Your task to perform on an android device: toggle show notifications on the lock screen Image 0: 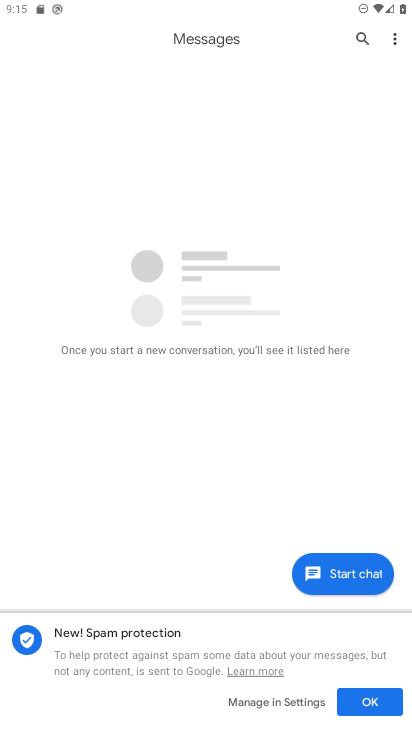
Step 0: press home button
Your task to perform on an android device: toggle show notifications on the lock screen Image 1: 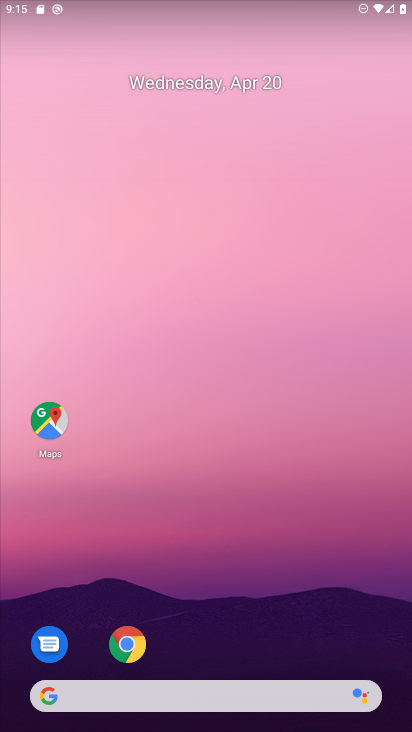
Step 1: drag from (305, 618) to (211, 84)
Your task to perform on an android device: toggle show notifications on the lock screen Image 2: 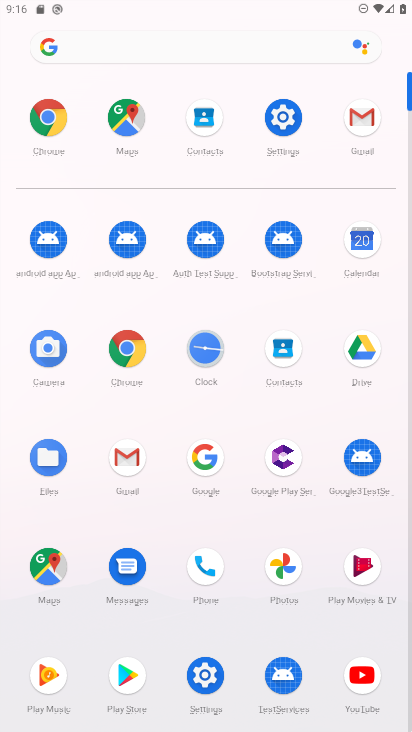
Step 2: click (192, 674)
Your task to perform on an android device: toggle show notifications on the lock screen Image 3: 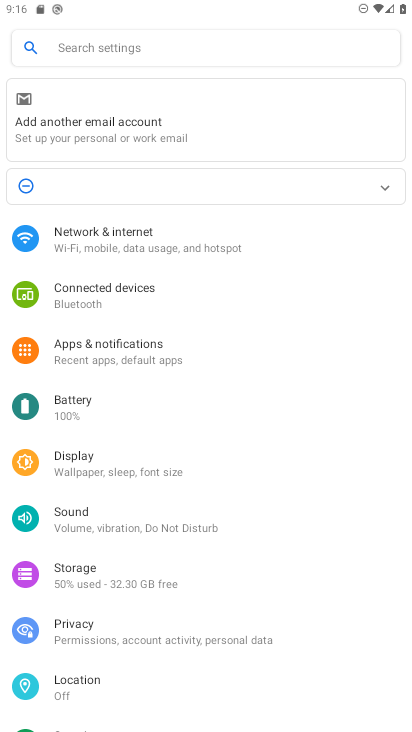
Step 3: click (150, 355)
Your task to perform on an android device: toggle show notifications on the lock screen Image 4: 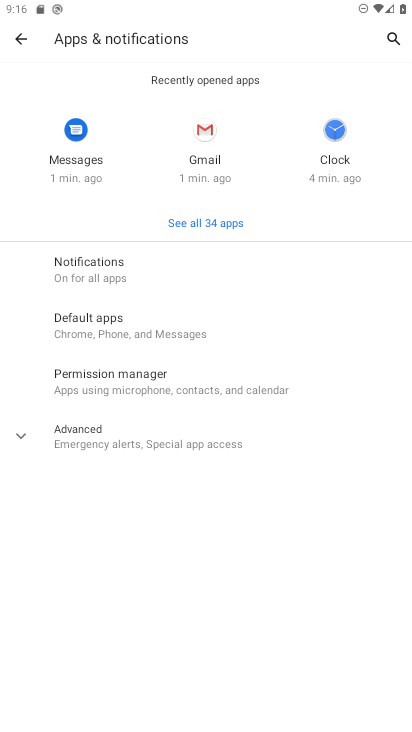
Step 4: click (67, 275)
Your task to perform on an android device: toggle show notifications on the lock screen Image 5: 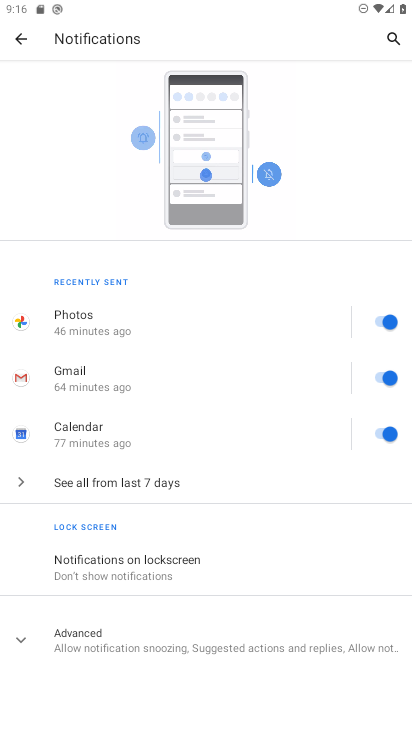
Step 5: click (166, 572)
Your task to perform on an android device: toggle show notifications on the lock screen Image 6: 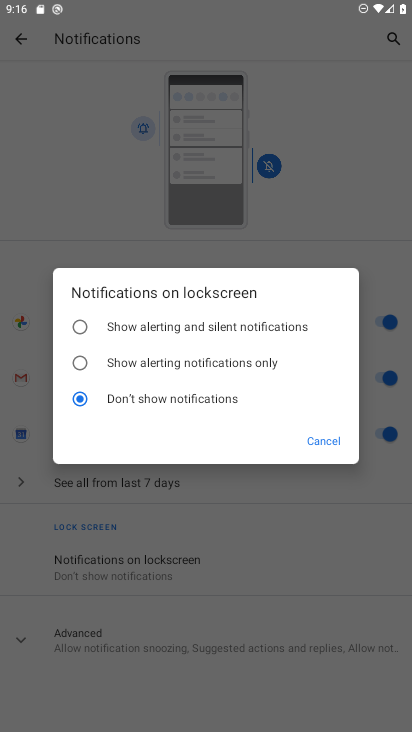
Step 6: click (152, 332)
Your task to perform on an android device: toggle show notifications on the lock screen Image 7: 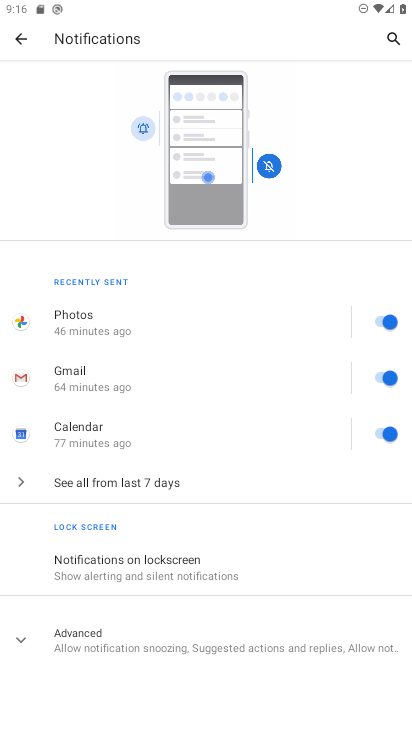
Step 7: task complete